Your task to perform on an android device: read, delete, or share a saved page in the chrome app Image 0: 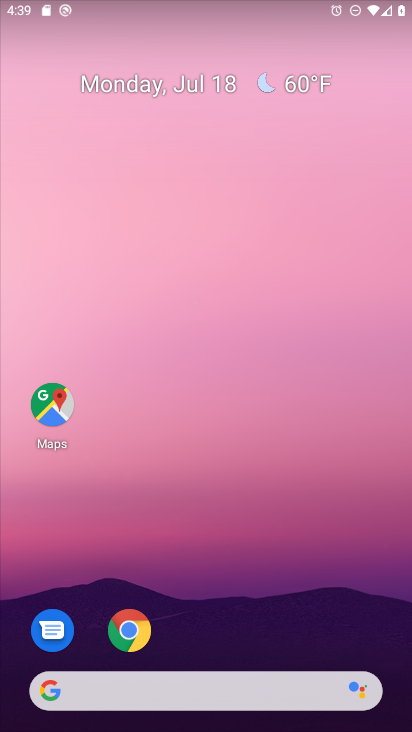
Step 0: click (137, 635)
Your task to perform on an android device: read, delete, or share a saved page in the chrome app Image 1: 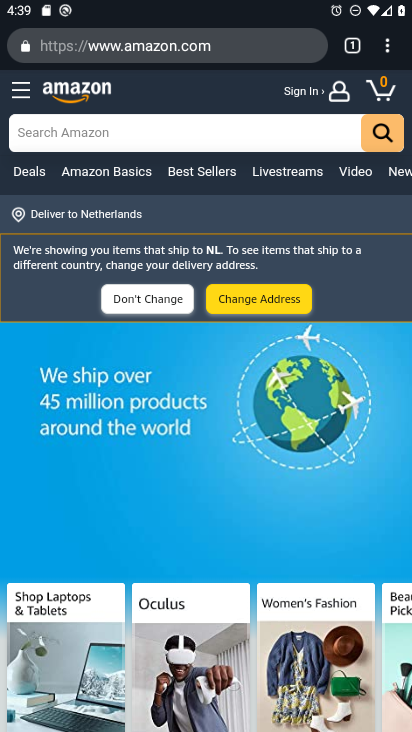
Step 1: click (385, 44)
Your task to perform on an android device: read, delete, or share a saved page in the chrome app Image 2: 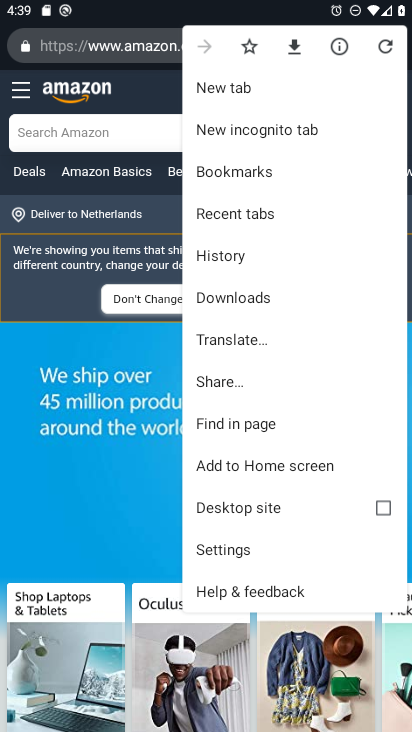
Step 2: click (241, 296)
Your task to perform on an android device: read, delete, or share a saved page in the chrome app Image 3: 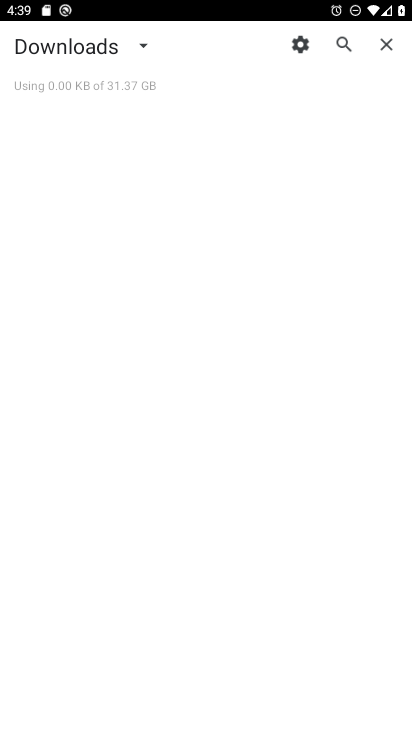
Step 3: task complete